Your task to perform on an android device: turn notification dots off Image 0: 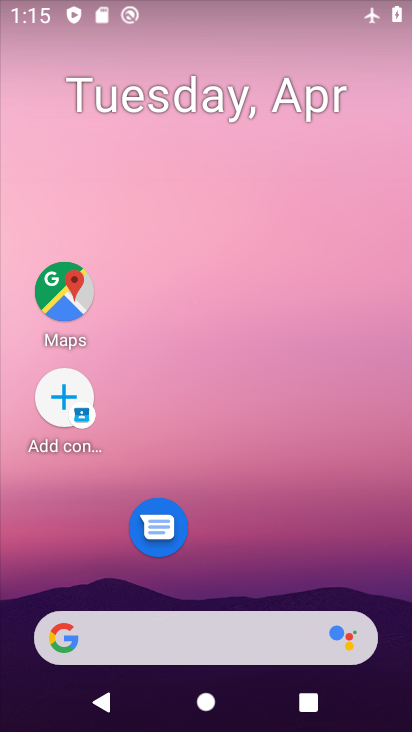
Step 0: drag from (280, 578) to (212, 191)
Your task to perform on an android device: turn notification dots off Image 1: 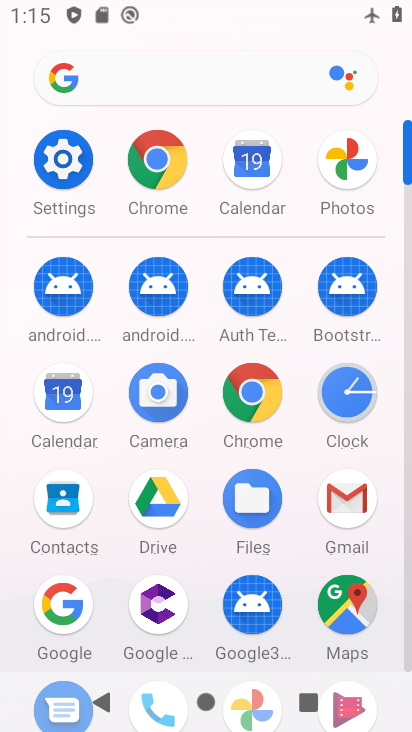
Step 1: click (71, 165)
Your task to perform on an android device: turn notification dots off Image 2: 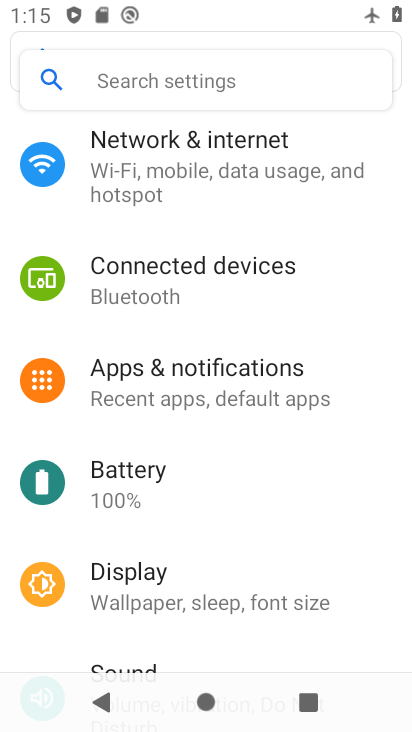
Step 2: click (167, 370)
Your task to perform on an android device: turn notification dots off Image 3: 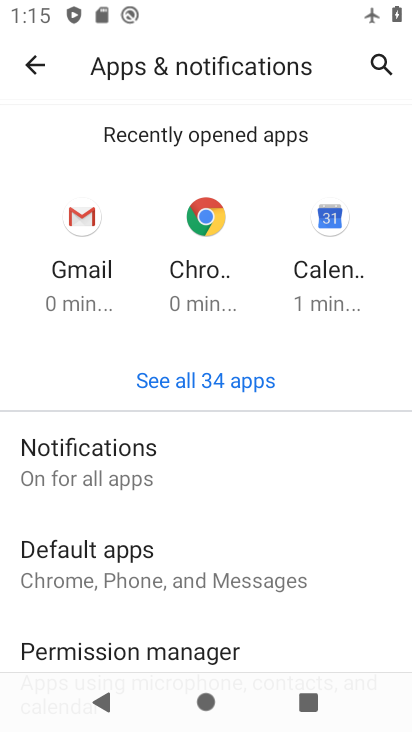
Step 3: click (130, 449)
Your task to perform on an android device: turn notification dots off Image 4: 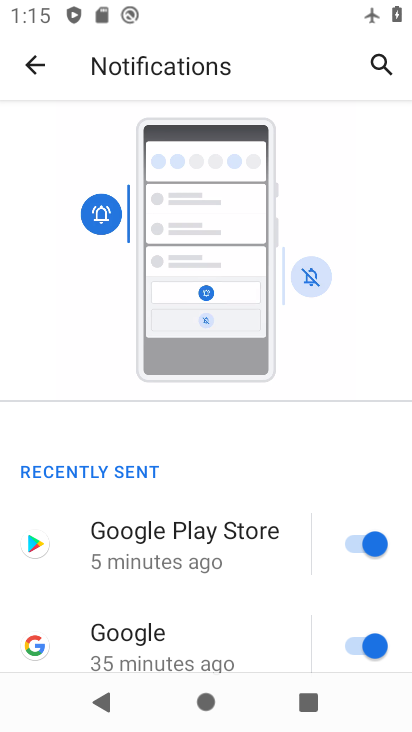
Step 4: drag from (228, 498) to (253, 263)
Your task to perform on an android device: turn notification dots off Image 5: 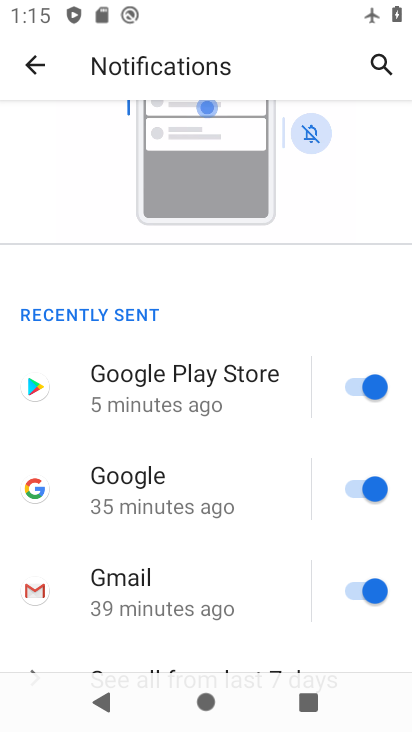
Step 5: drag from (189, 458) to (237, 278)
Your task to perform on an android device: turn notification dots off Image 6: 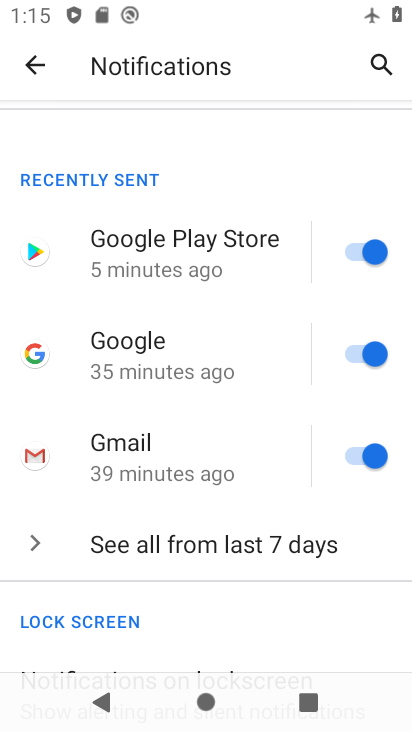
Step 6: drag from (201, 414) to (261, 271)
Your task to perform on an android device: turn notification dots off Image 7: 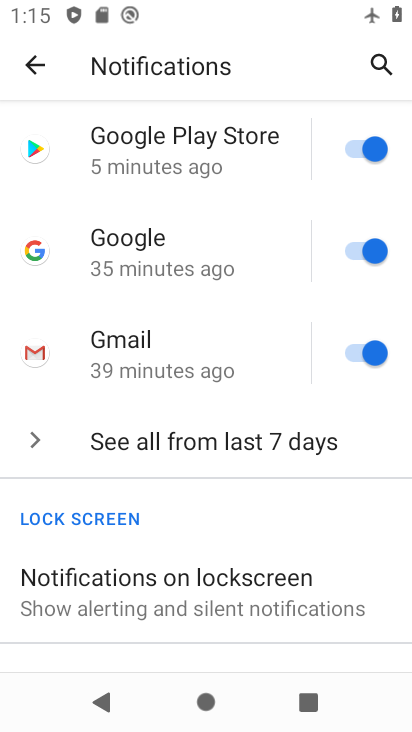
Step 7: drag from (192, 532) to (240, 384)
Your task to perform on an android device: turn notification dots off Image 8: 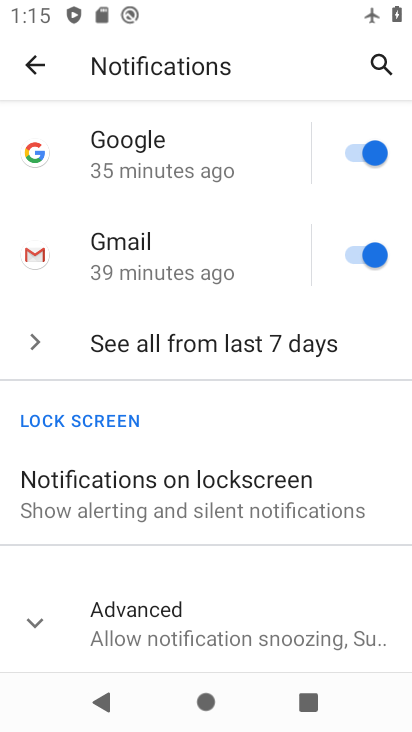
Step 8: click (208, 642)
Your task to perform on an android device: turn notification dots off Image 9: 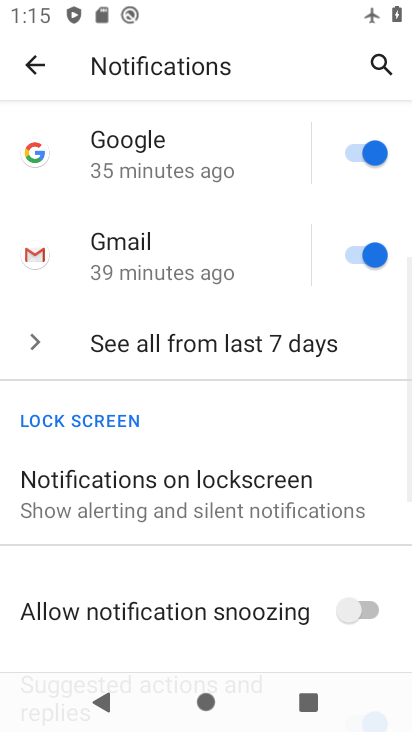
Step 9: task complete